Your task to perform on an android device: search for starred emails in the gmail app Image 0: 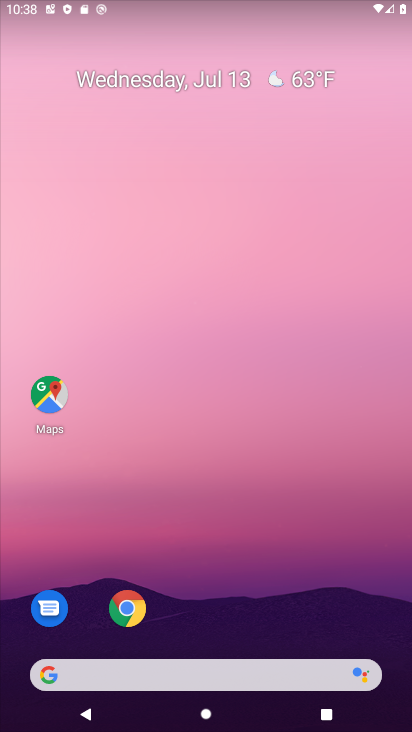
Step 0: press home button
Your task to perform on an android device: search for starred emails in the gmail app Image 1: 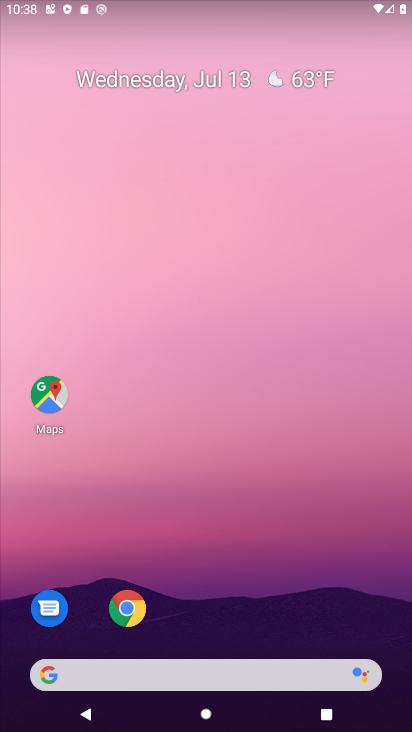
Step 1: press home button
Your task to perform on an android device: search for starred emails in the gmail app Image 2: 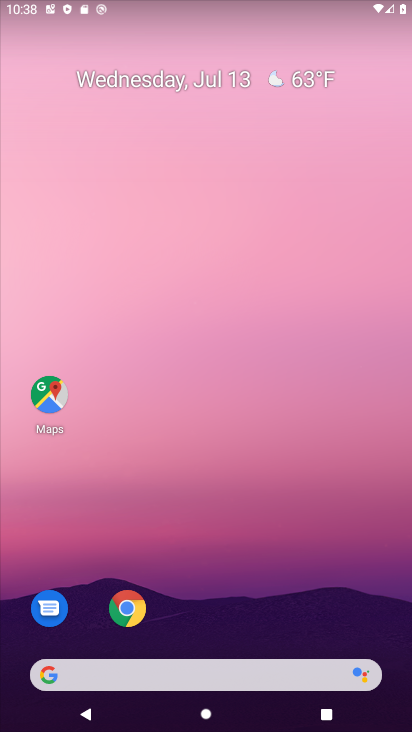
Step 2: drag from (256, 592) to (280, 135)
Your task to perform on an android device: search for starred emails in the gmail app Image 3: 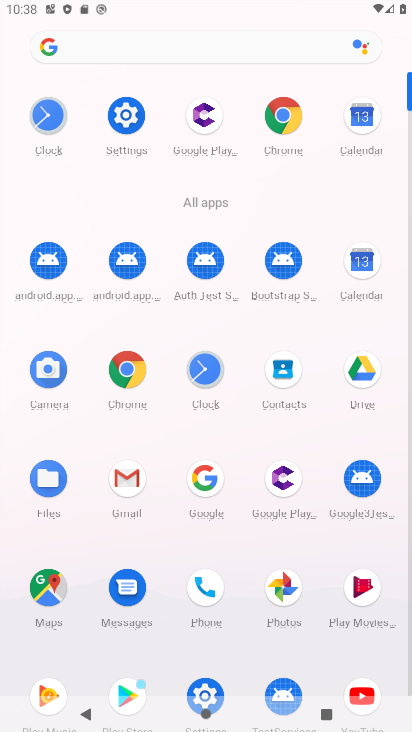
Step 3: click (128, 481)
Your task to perform on an android device: search for starred emails in the gmail app Image 4: 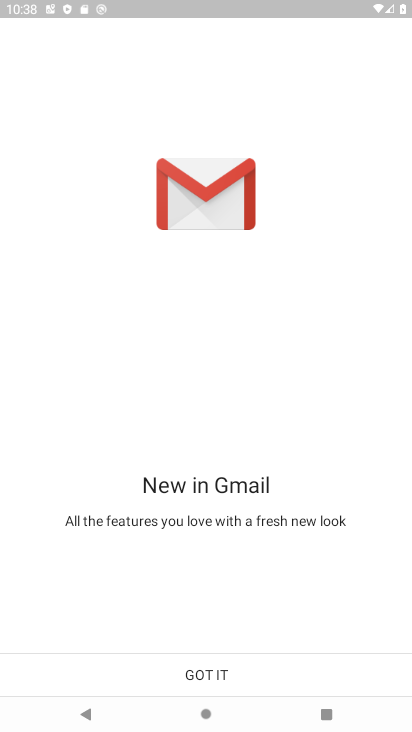
Step 4: click (185, 666)
Your task to perform on an android device: search for starred emails in the gmail app Image 5: 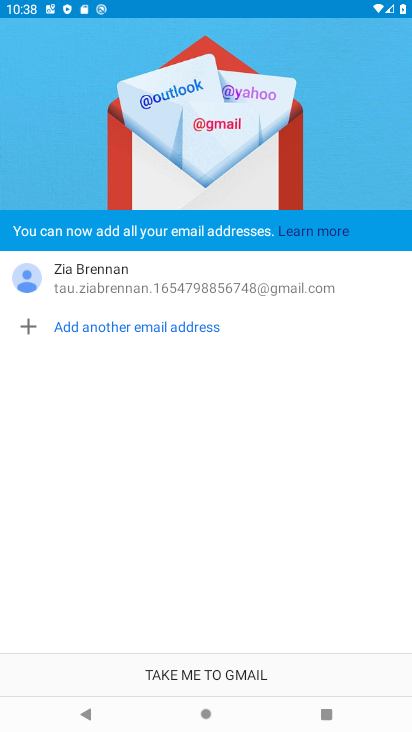
Step 5: click (185, 666)
Your task to perform on an android device: search for starred emails in the gmail app Image 6: 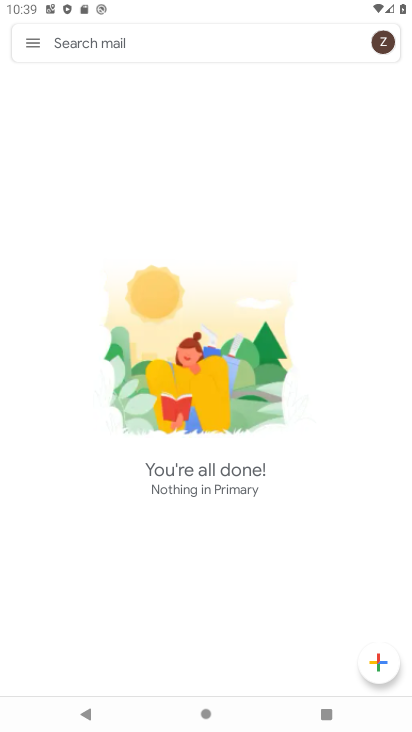
Step 6: click (34, 43)
Your task to perform on an android device: search for starred emails in the gmail app Image 7: 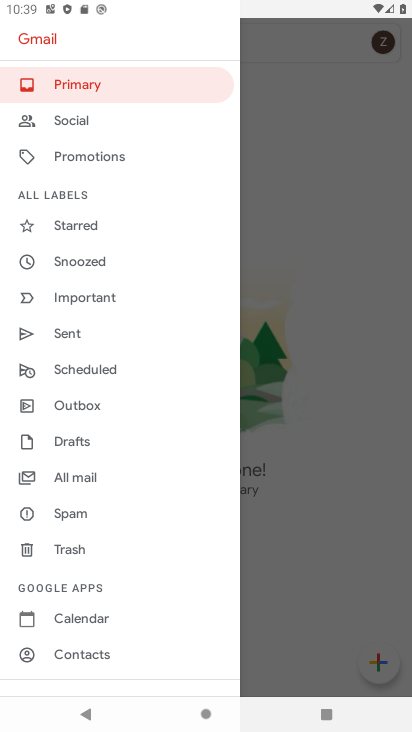
Step 7: click (93, 227)
Your task to perform on an android device: search for starred emails in the gmail app Image 8: 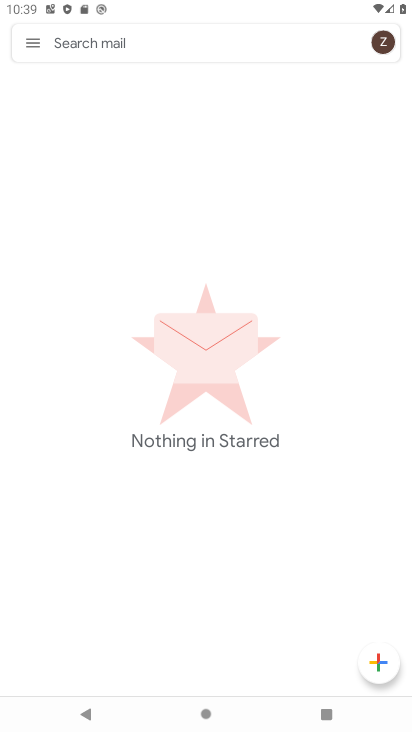
Step 8: task complete